Your task to perform on an android device: Go to Google Image 0: 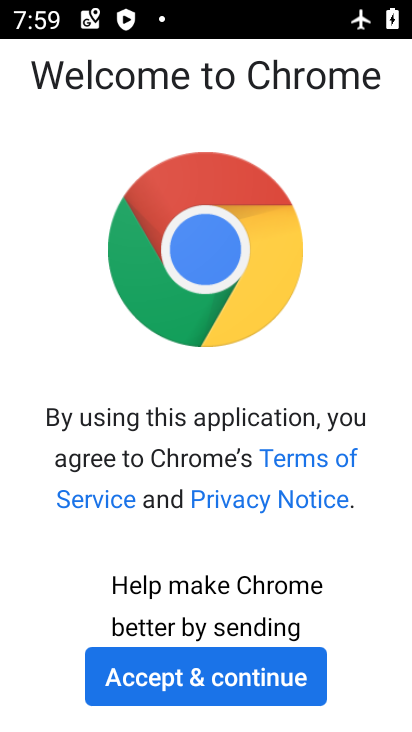
Step 0: press home button
Your task to perform on an android device: Go to Google Image 1: 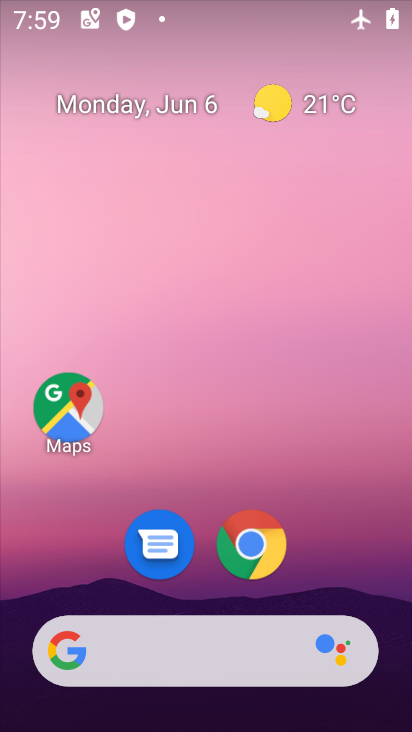
Step 1: drag from (276, 452) to (279, 236)
Your task to perform on an android device: Go to Google Image 2: 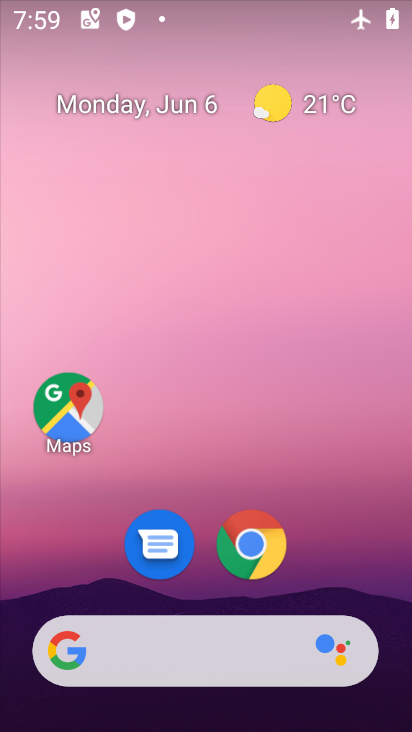
Step 2: drag from (138, 567) to (139, 239)
Your task to perform on an android device: Go to Google Image 3: 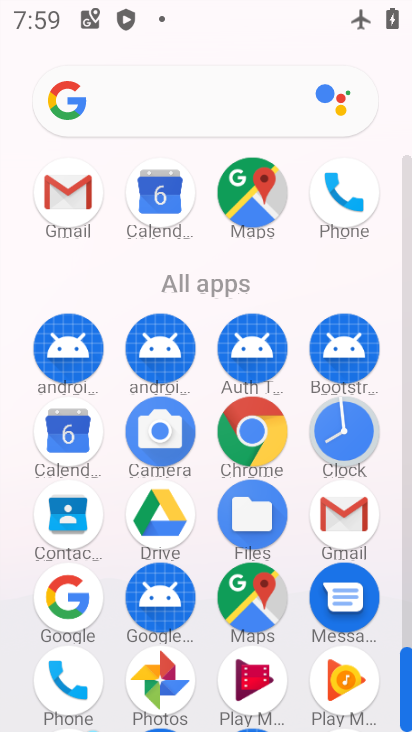
Step 3: click (69, 591)
Your task to perform on an android device: Go to Google Image 4: 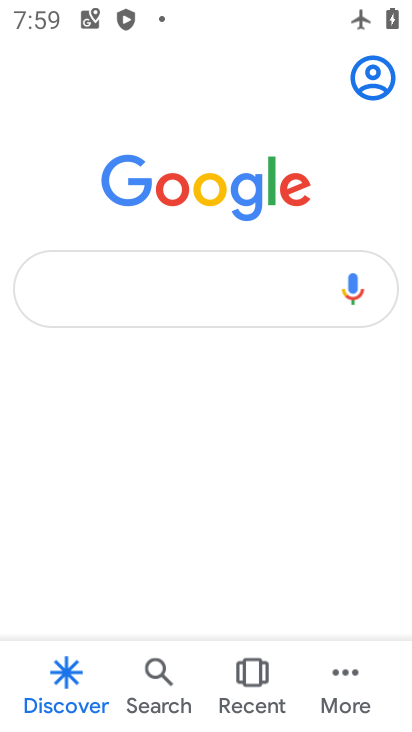
Step 4: task complete